Your task to perform on an android device: change the clock display to digital Image 0: 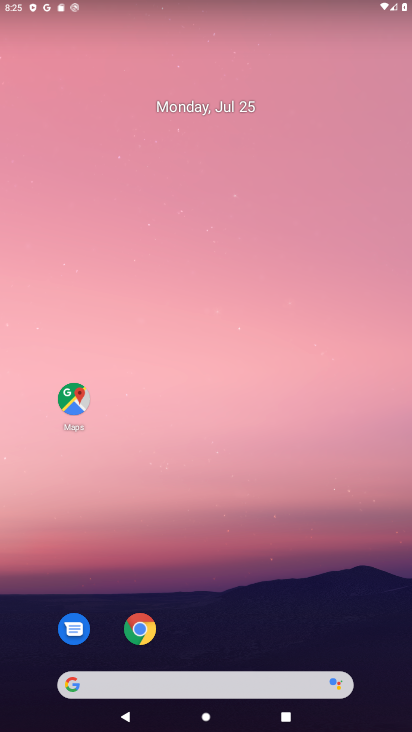
Step 0: drag from (234, 635) to (199, 76)
Your task to perform on an android device: change the clock display to digital Image 1: 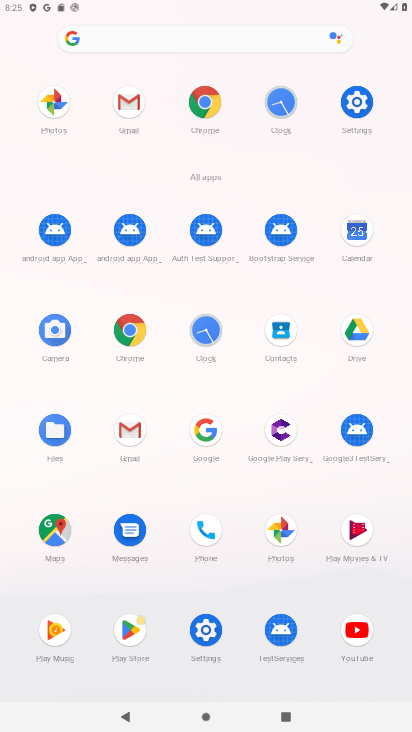
Step 1: click (289, 100)
Your task to perform on an android device: change the clock display to digital Image 2: 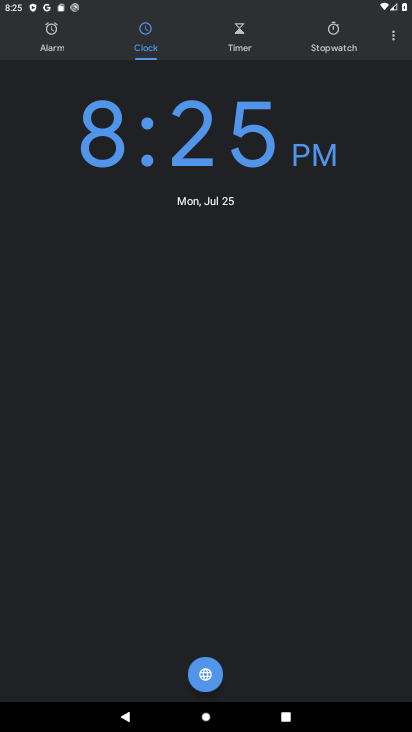
Step 2: click (396, 27)
Your task to perform on an android device: change the clock display to digital Image 3: 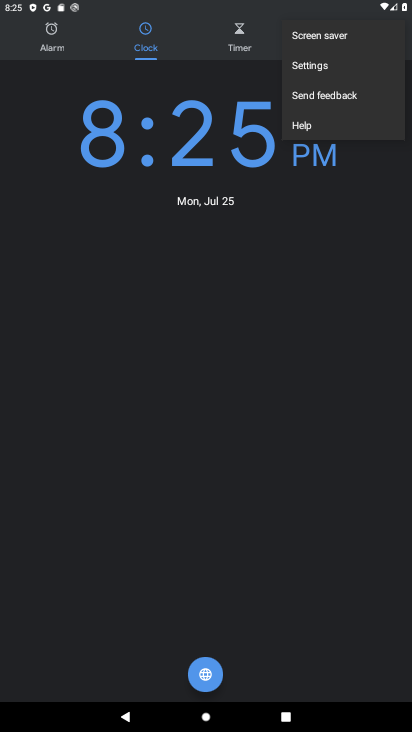
Step 3: click (333, 69)
Your task to perform on an android device: change the clock display to digital Image 4: 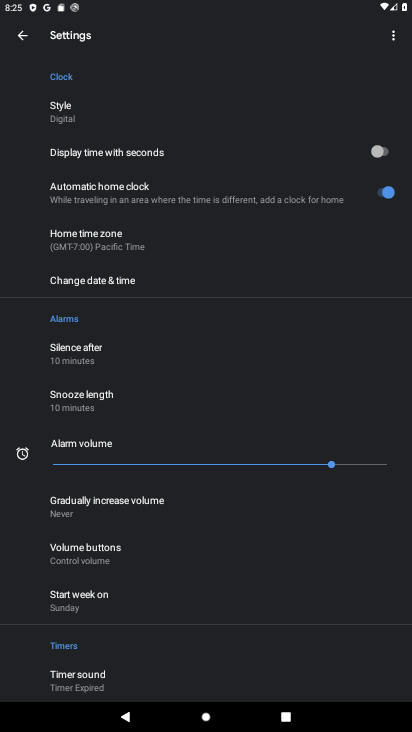
Step 4: click (139, 123)
Your task to perform on an android device: change the clock display to digital Image 5: 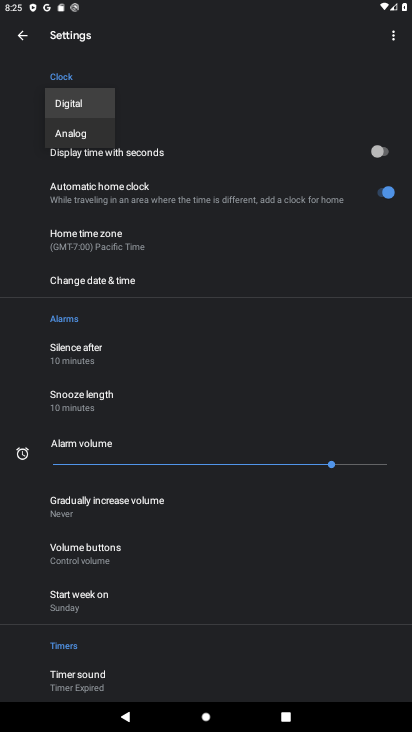
Step 5: task complete